Your task to perform on an android device: see sites visited before in the chrome app Image 0: 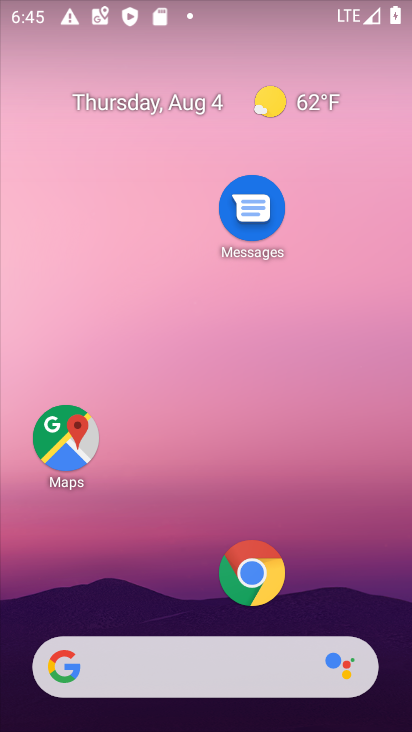
Step 0: drag from (179, 623) to (277, 129)
Your task to perform on an android device: see sites visited before in the chrome app Image 1: 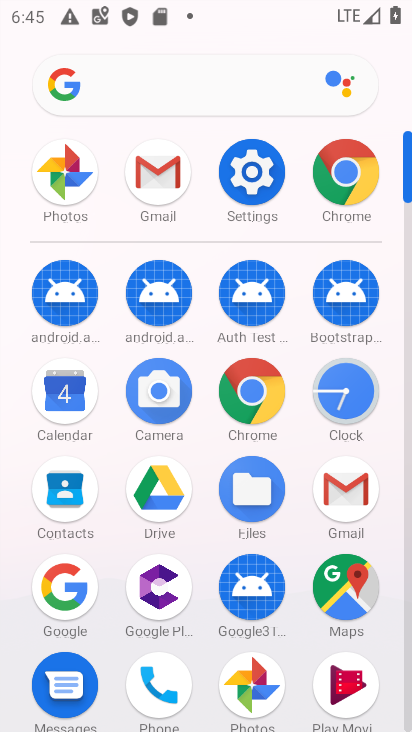
Step 1: click (355, 174)
Your task to perform on an android device: see sites visited before in the chrome app Image 2: 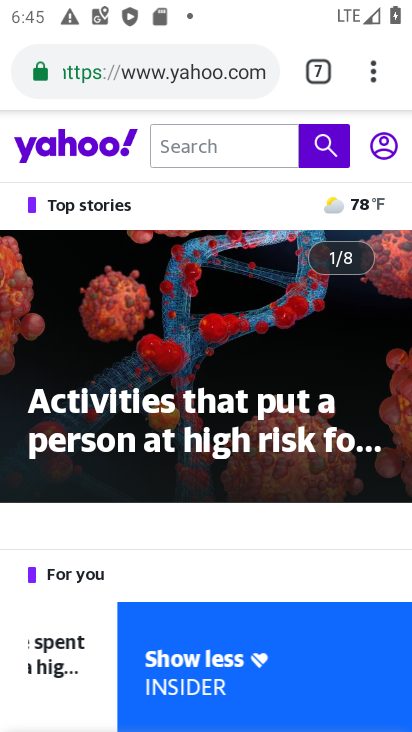
Step 2: task complete